Your task to perform on an android device: Open the calendar and show me this week's events? Image 0: 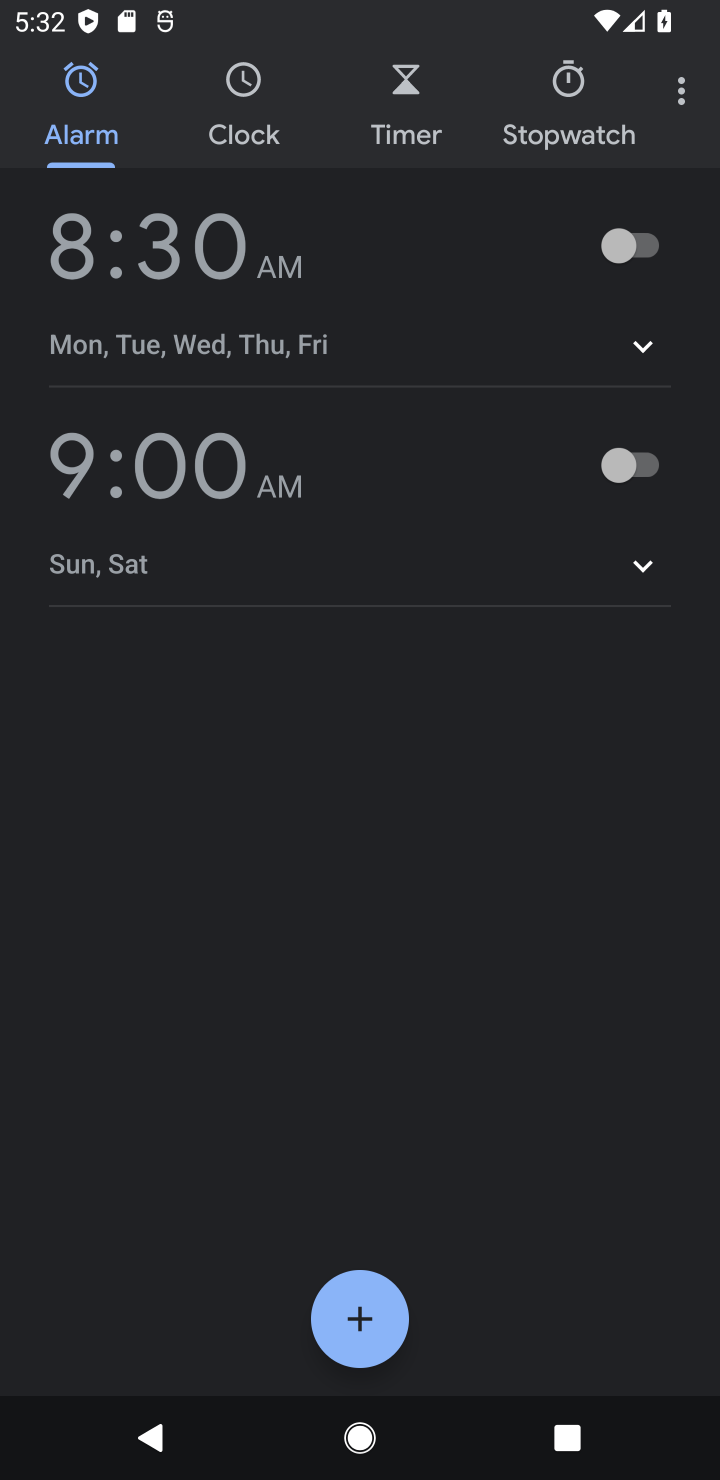
Step 0: press home button
Your task to perform on an android device: Open the calendar and show me this week's events? Image 1: 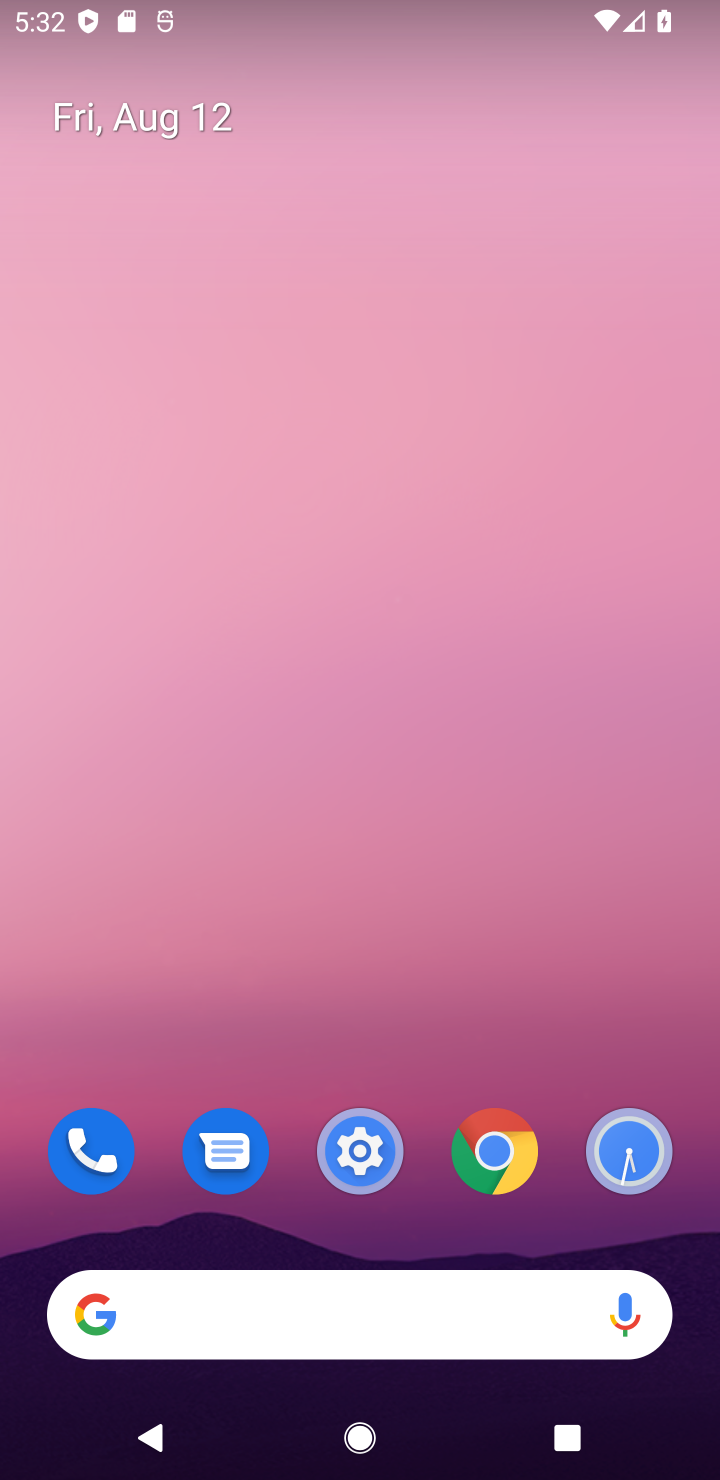
Step 1: drag from (564, 1003) to (274, 14)
Your task to perform on an android device: Open the calendar and show me this week's events? Image 2: 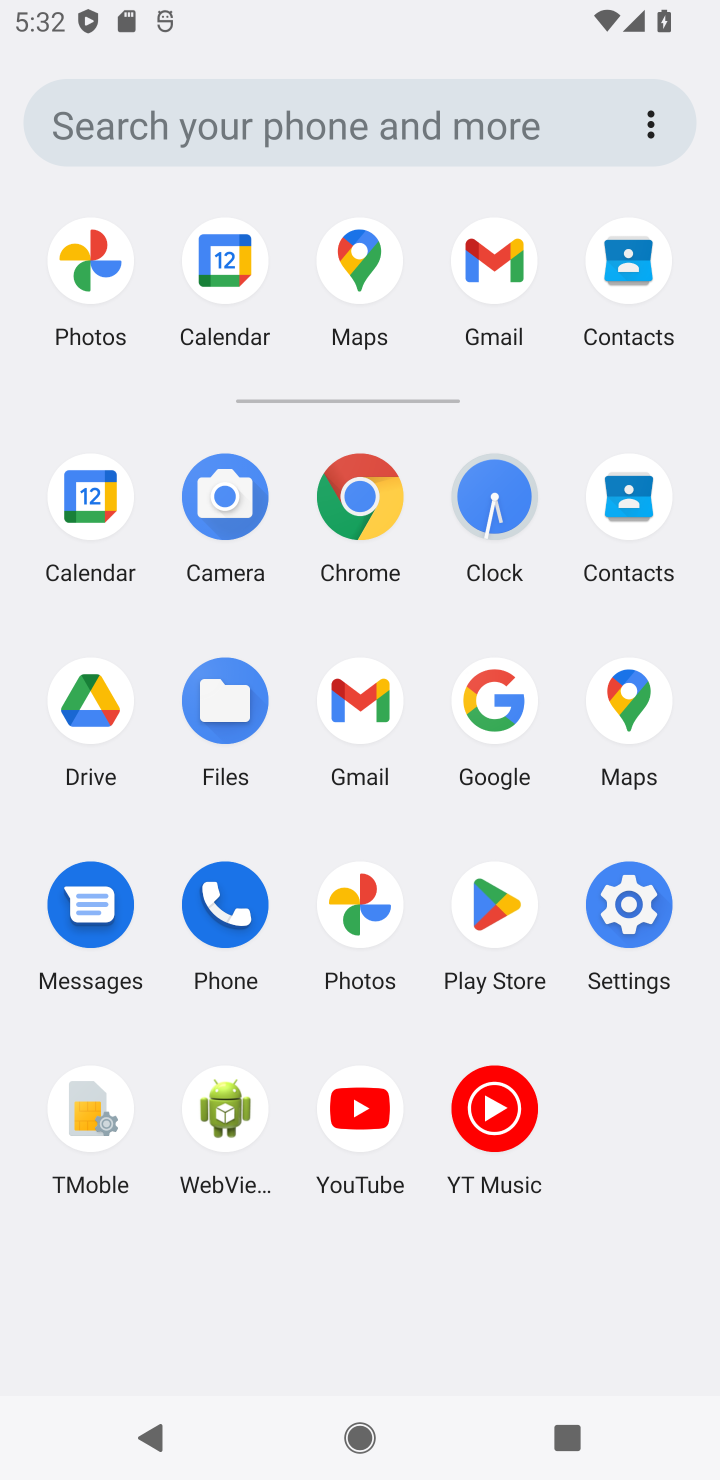
Step 2: click (88, 499)
Your task to perform on an android device: Open the calendar and show me this week's events? Image 3: 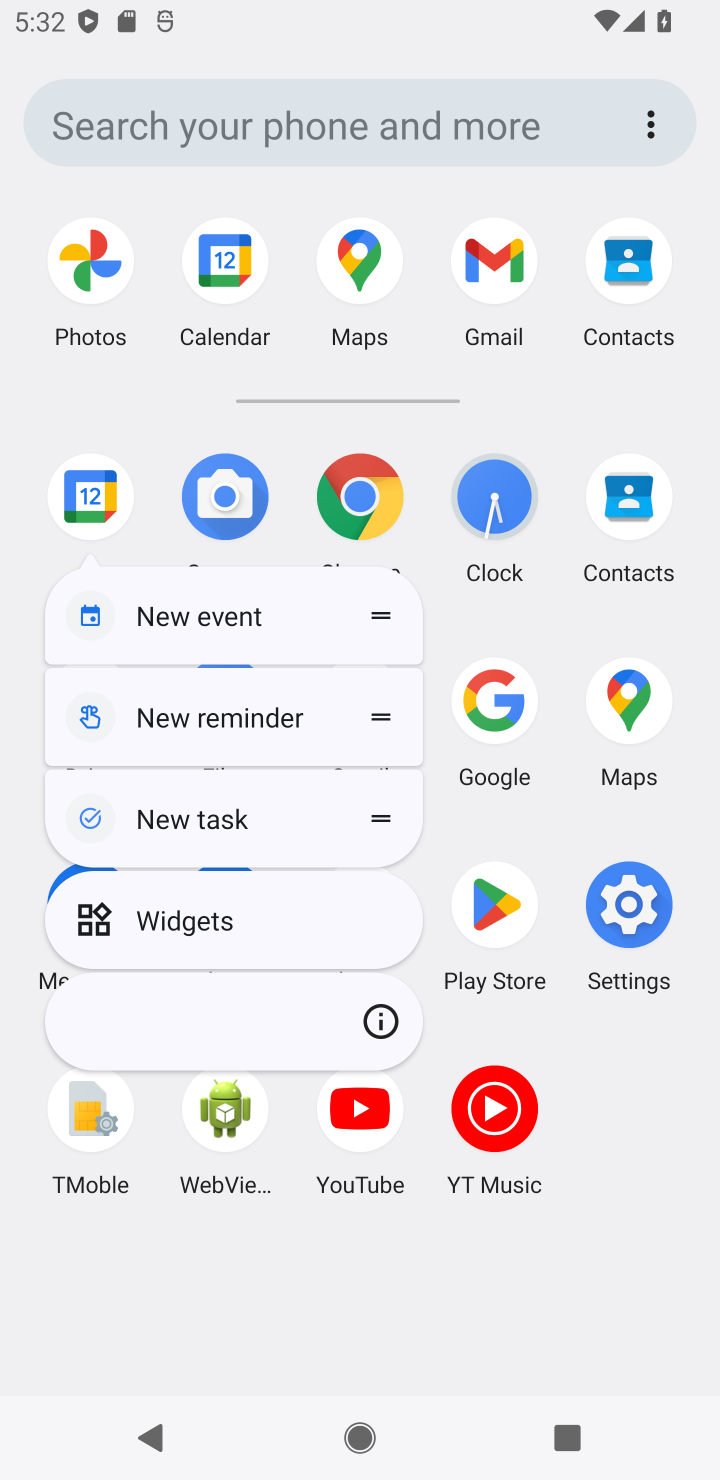
Step 3: click (88, 499)
Your task to perform on an android device: Open the calendar and show me this week's events? Image 4: 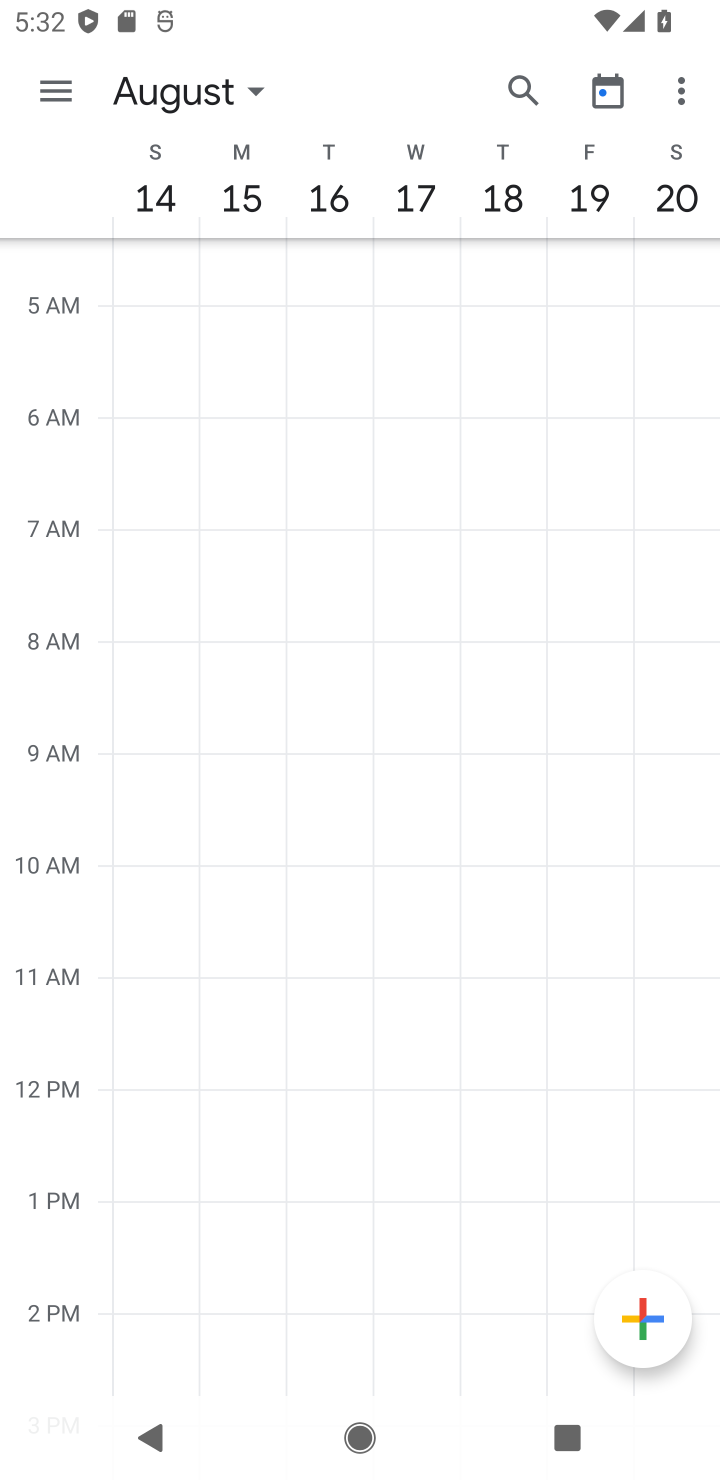
Step 4: click (226, 94)
Your task to perform on an android device: Open the calendar and show me this week's events? Image 5: 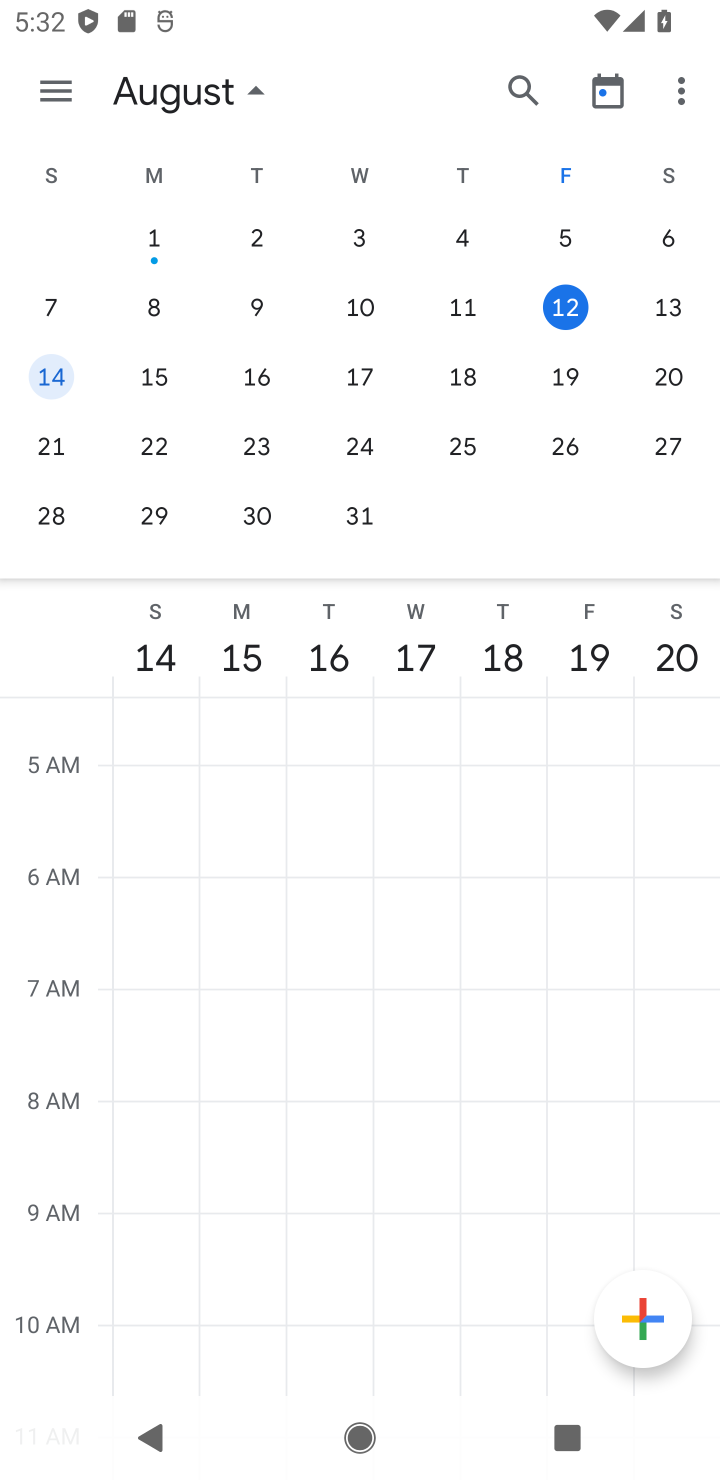
Step 5: click (552, 294)
Your task to perform on an android device: Open the calendar and show me this week's events? Image 6: 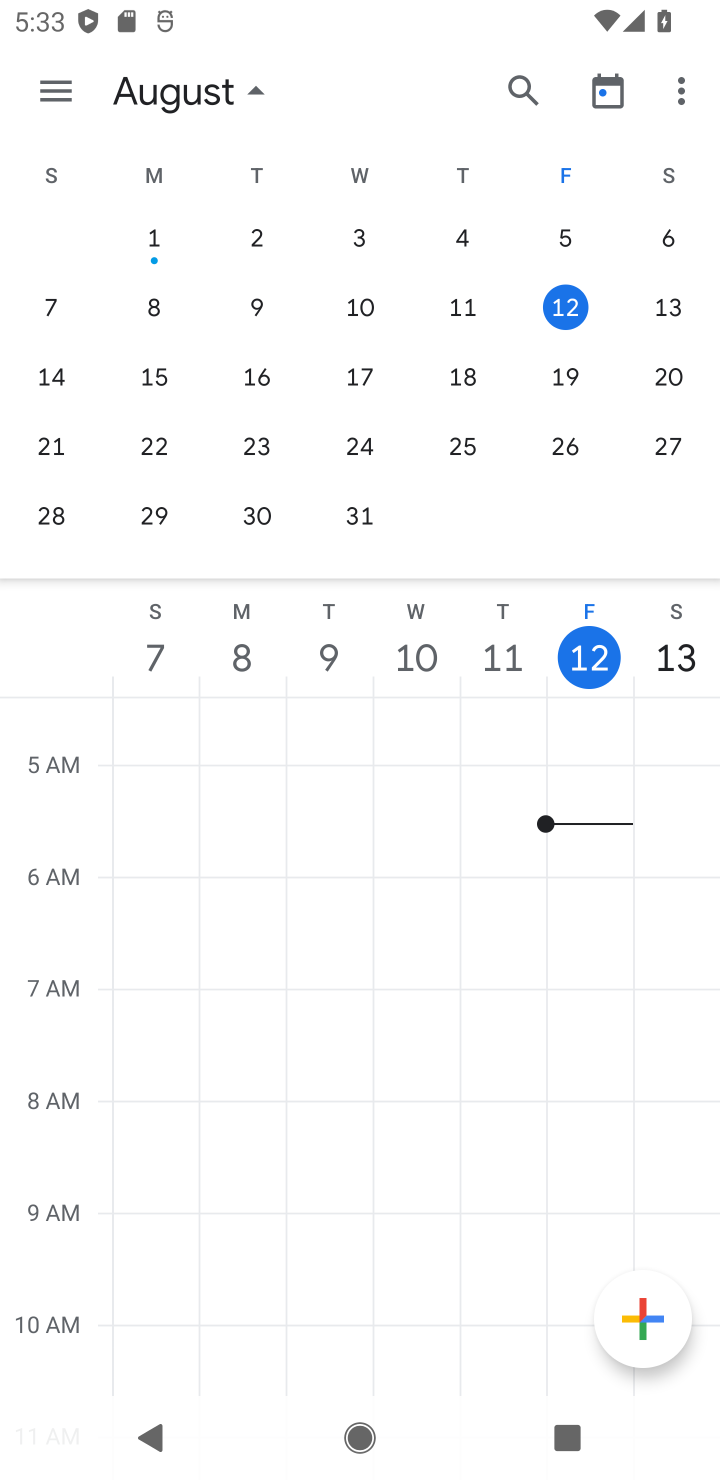
Step 6: task complete